Your task to perform on an android device: What's on my calendar today? Image 0: 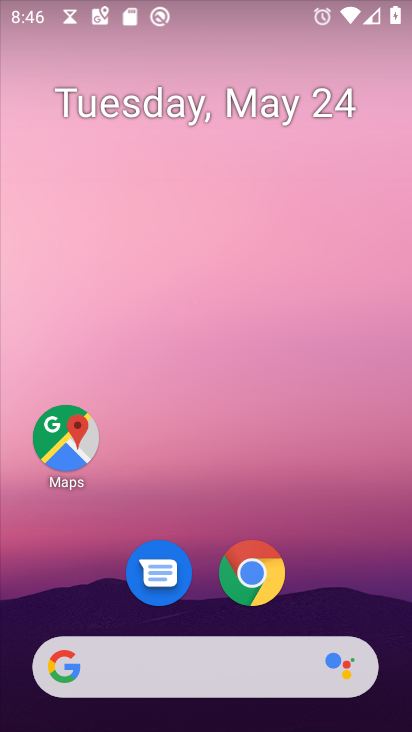
Step 0: drag from (336, 571) to (380, 83)
Your task to perform on an android device: What's on my calendar today? Image 1: 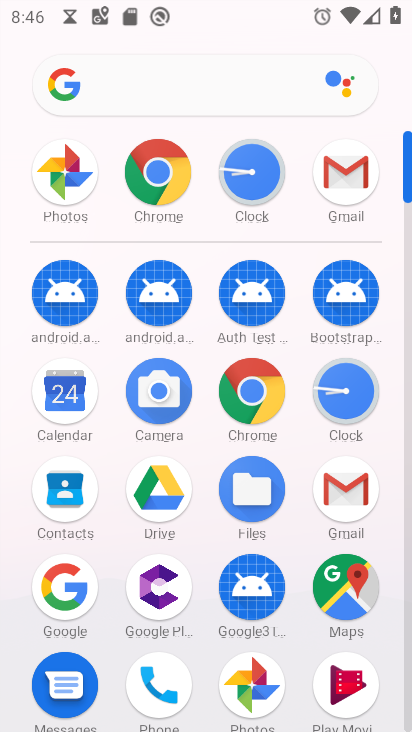
Step 1: click (49, 401)
Your task to perform on an android device: What's on my calendar today? Image 2: 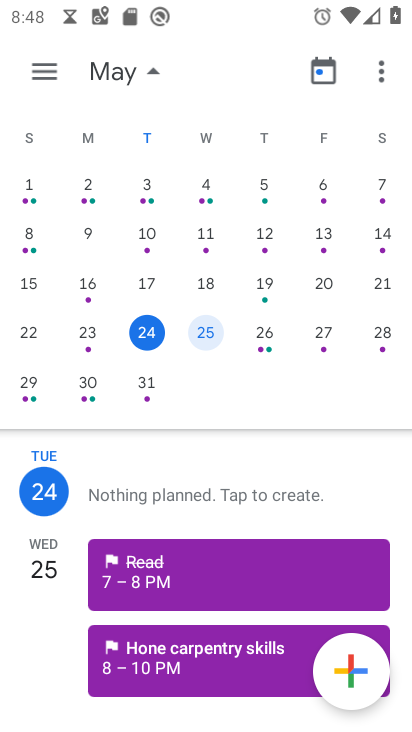
Step 2: task complete